Your task to perform on an android device: uninstall "DoorDash - Food Delivery" Image 0: 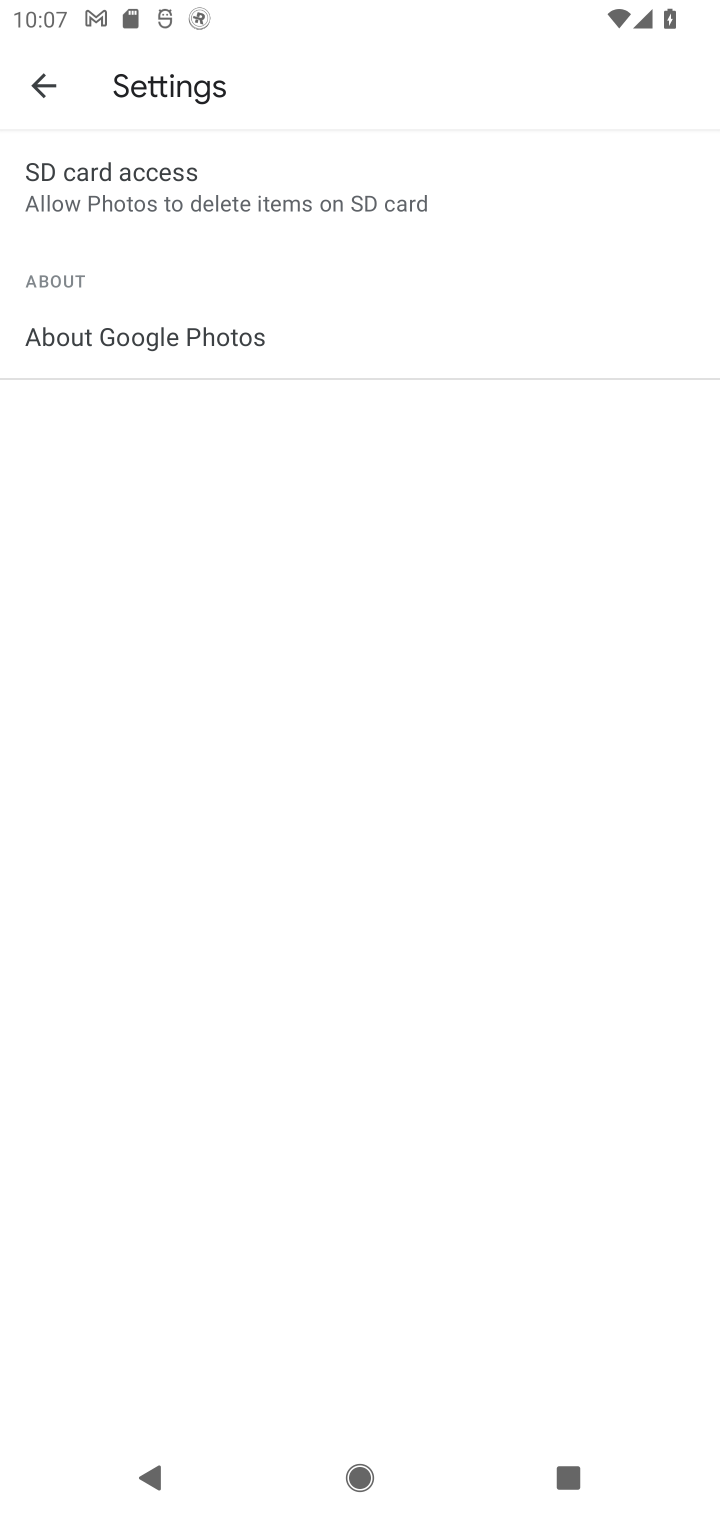
Step 0: press home button
Your task to perform on an android device: uninstall "DoorDash - Food Delivery" Image 1: 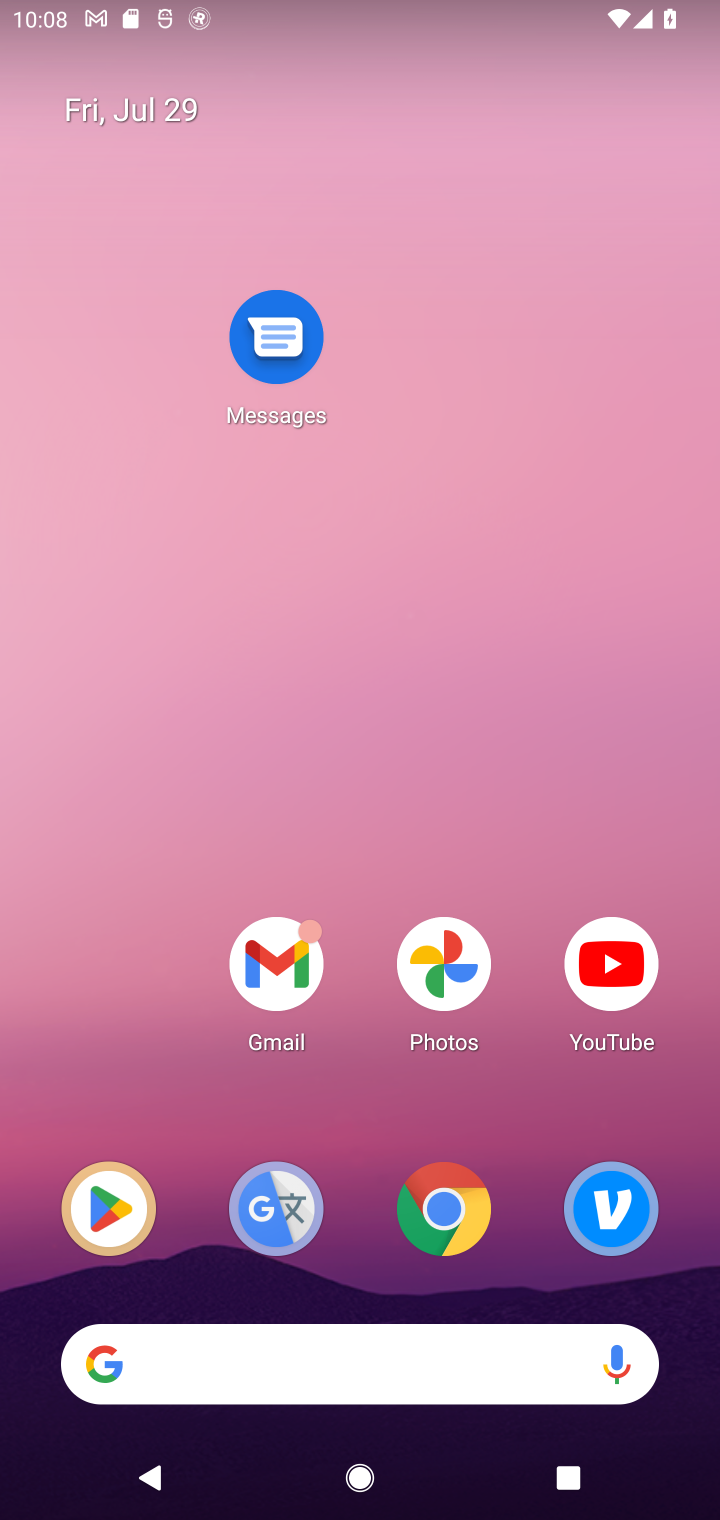
Step 1: drag from (299, 1385) to (434, 513)
Your task to perform on an android device: uninstall "DoorDash - Food Delivery" Image 2: 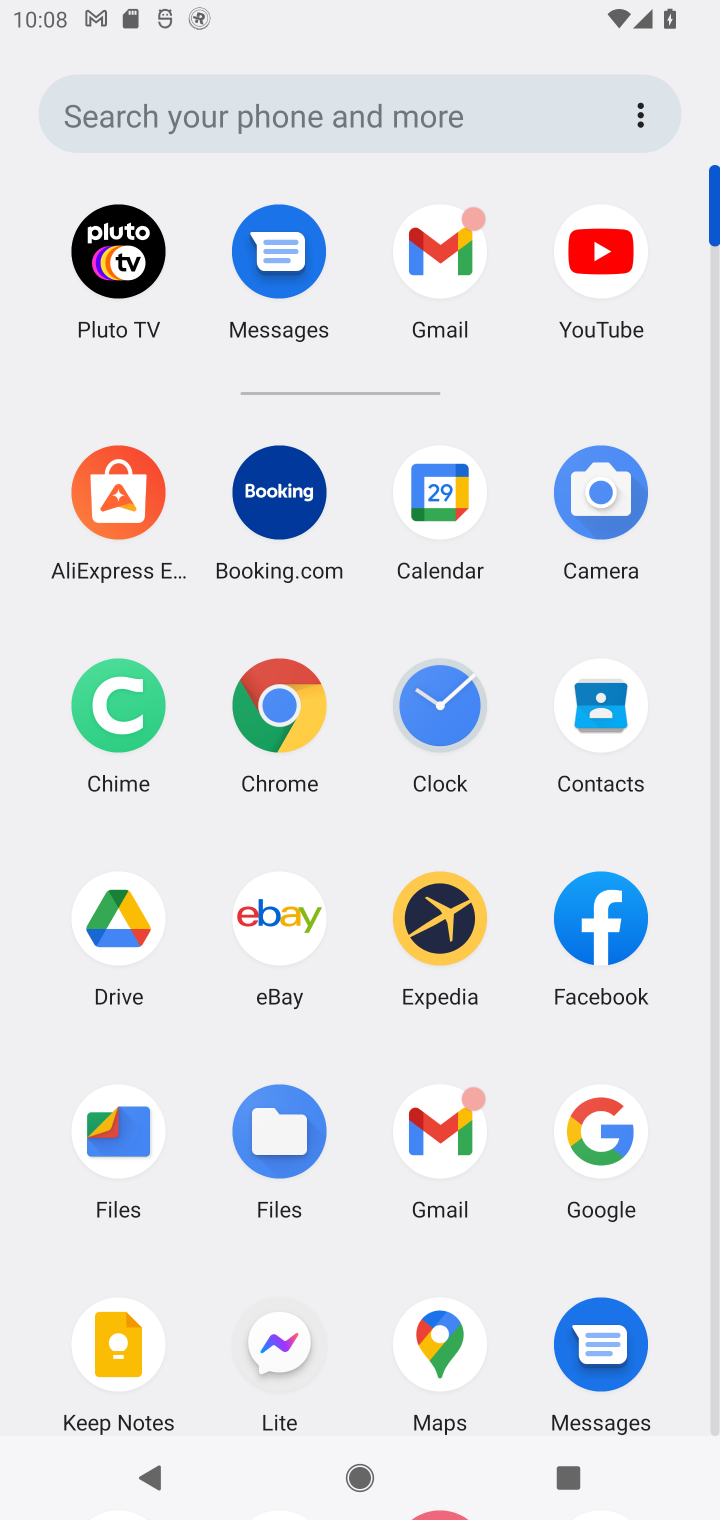
Step 2: drag from (358, 1301) to (379, 752)
Your task to perform on an android device: uninstall "DoorDash - Food Delivery" Image 3: 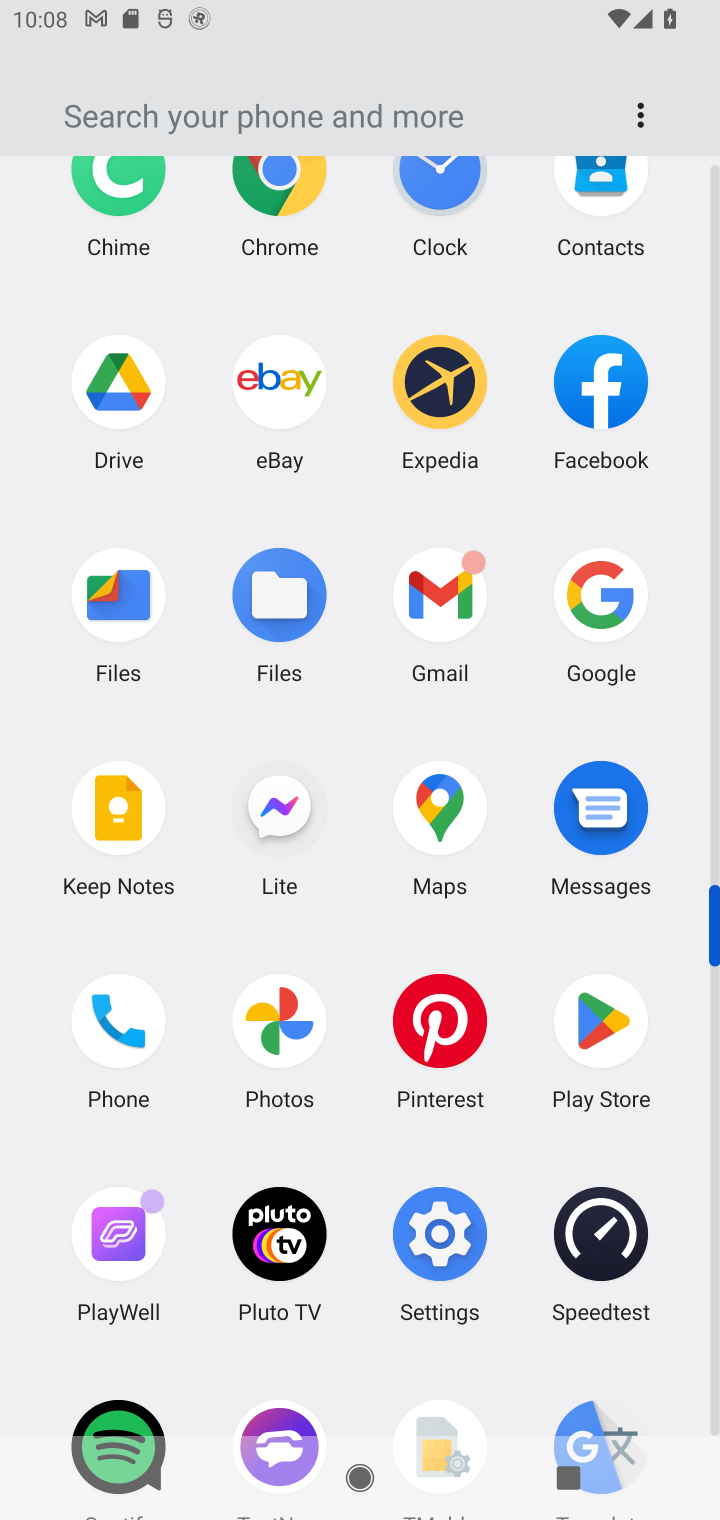
Step 3: drag from (353, 1086) to (370, 858)
Your task to perform on an android device: uninstall "DoorDash - Food Delivery" Image 4: 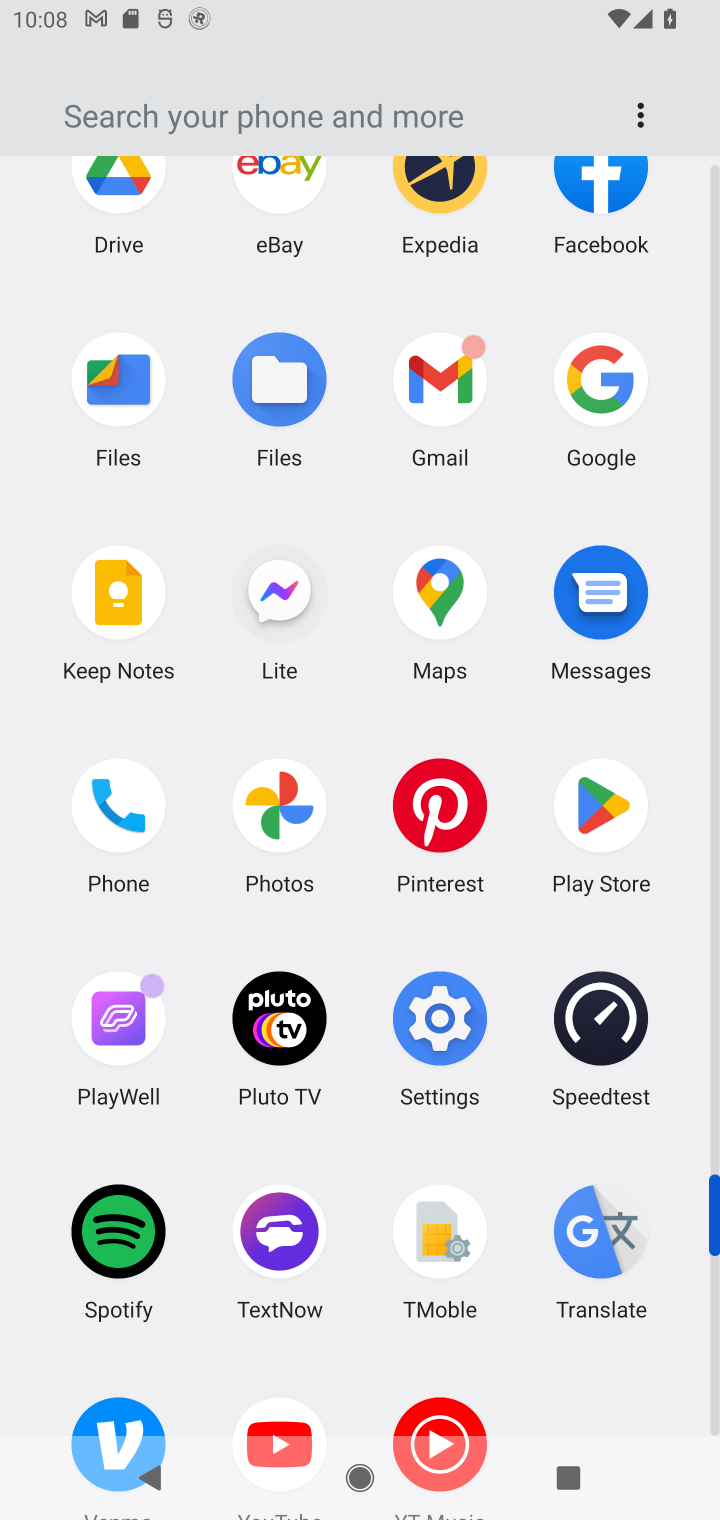
Step 4: click (606, 814)
Your task to perform on an android device: uninstall "DoorDash - Food Delivery" Image 5: 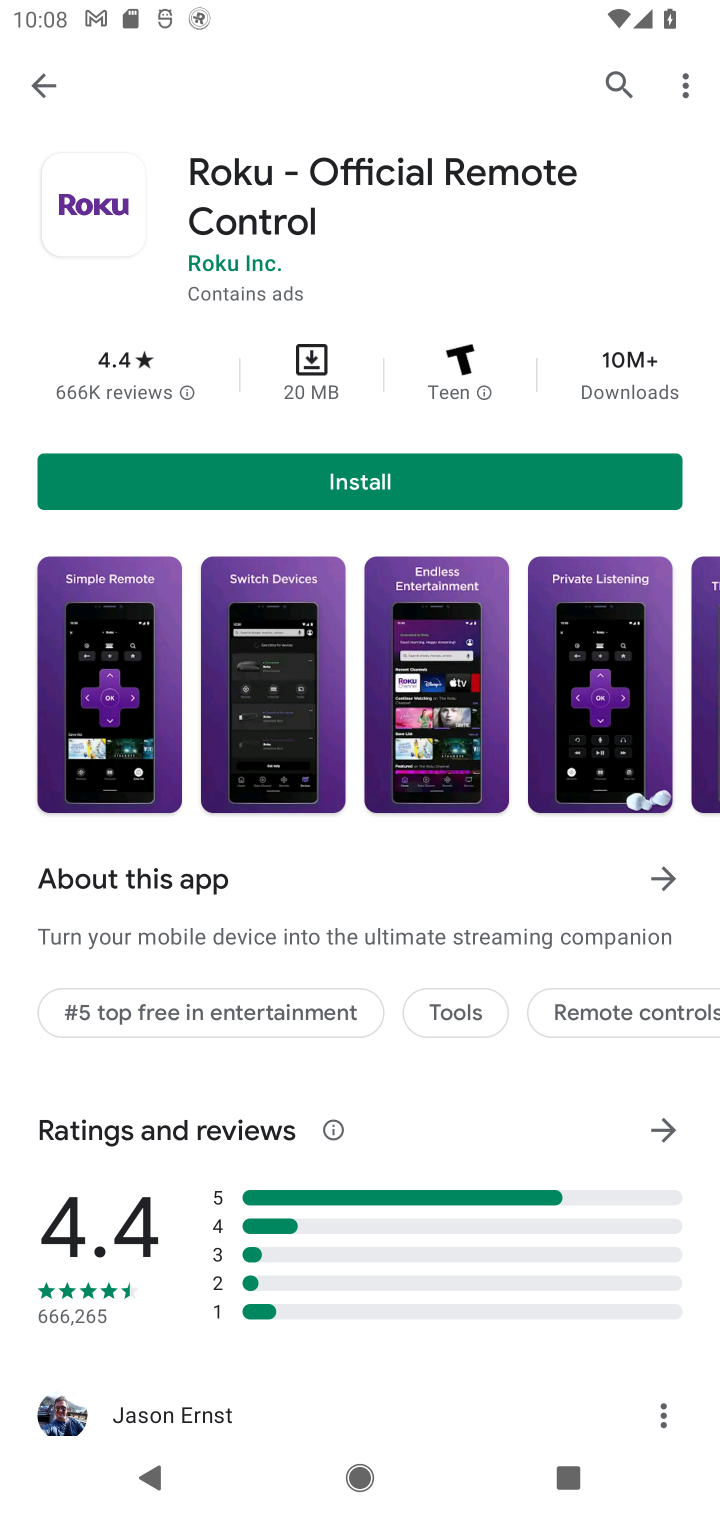
Step 5: click (613, 78)
Your task to perform on an android device: uninstall "DoorDash - Food Delivery" Image 6: 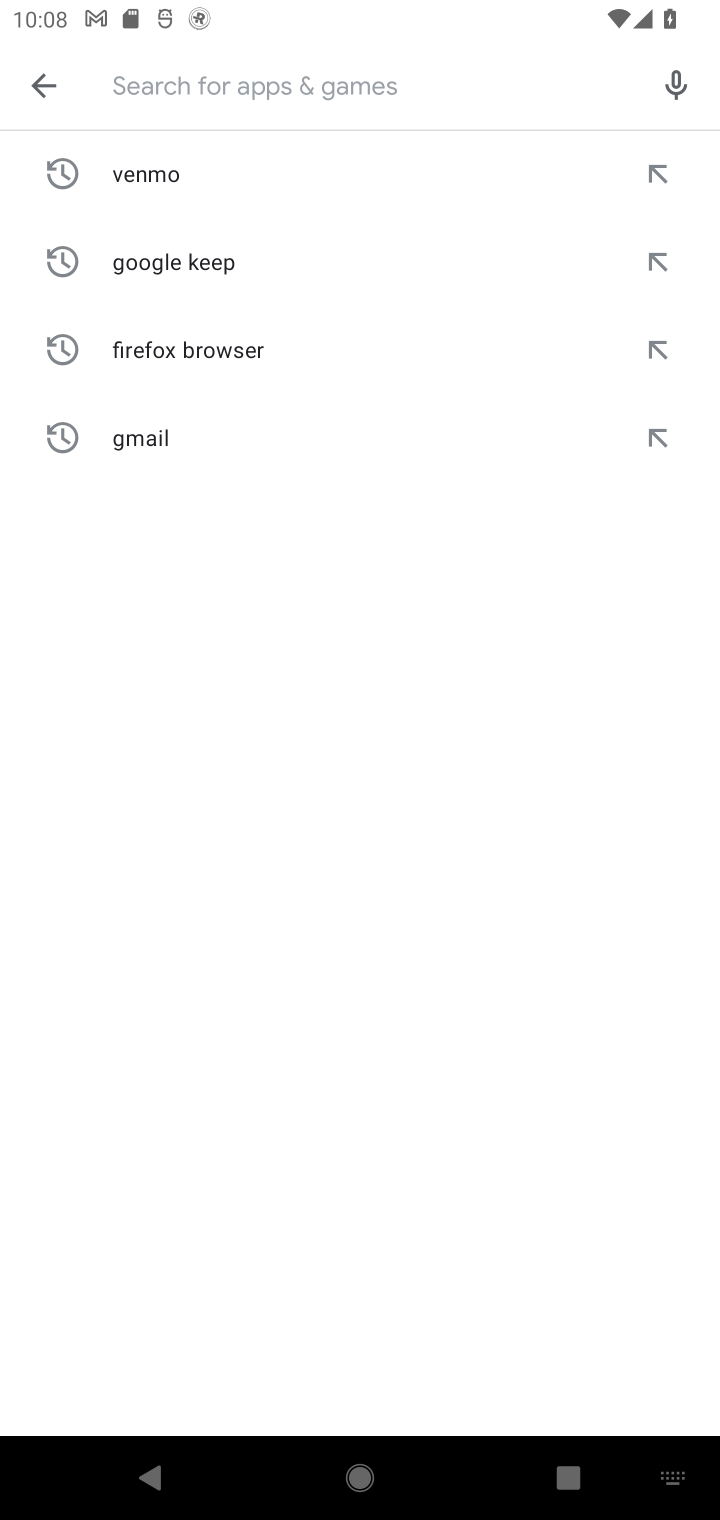
Step 6: click (411, 60)
Your task to perform on an android device: uninstall "DoorDash - Food Delivery" Image 7: 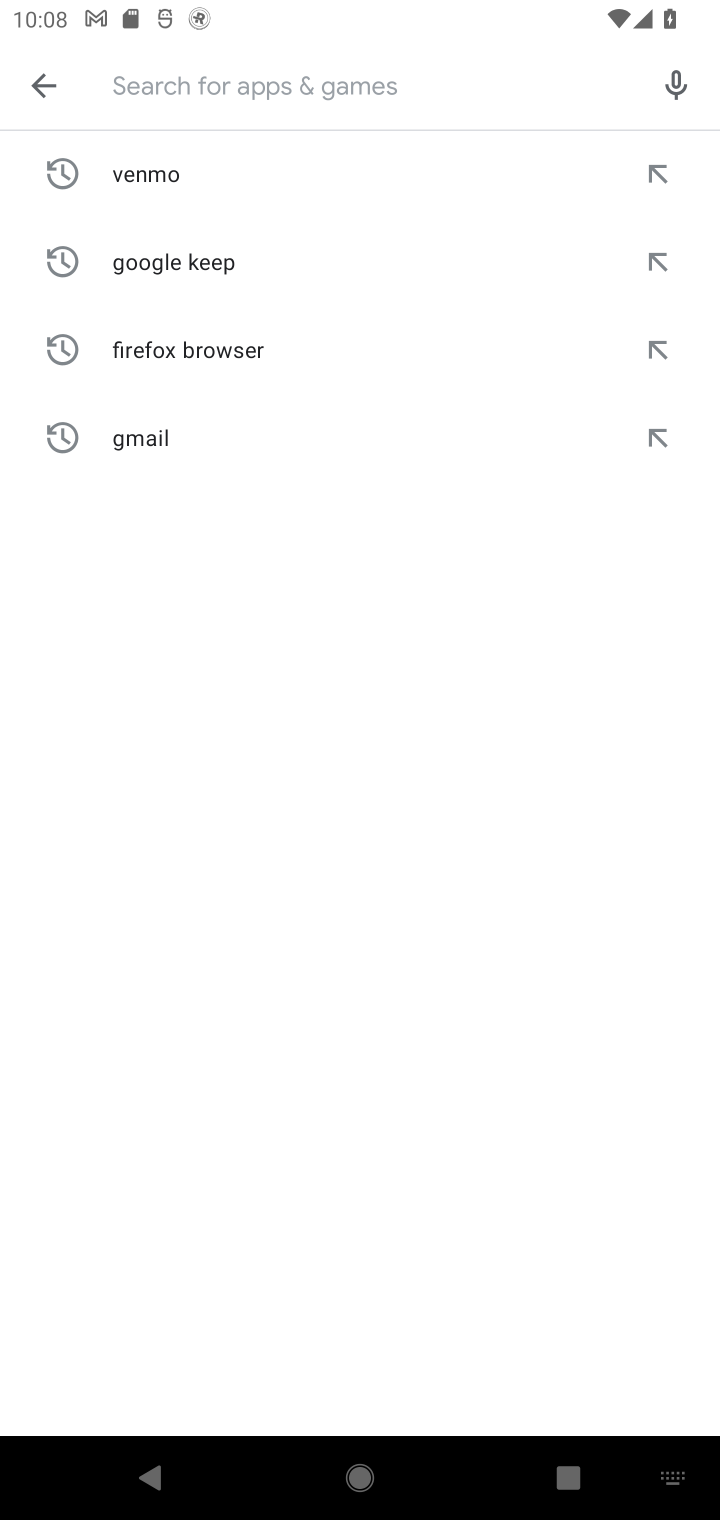
Step 7: type "DoorDash - Food Delivery"
Your task to perform on an android device: uninstall "DoorDash - Food Delivery" Image 8: 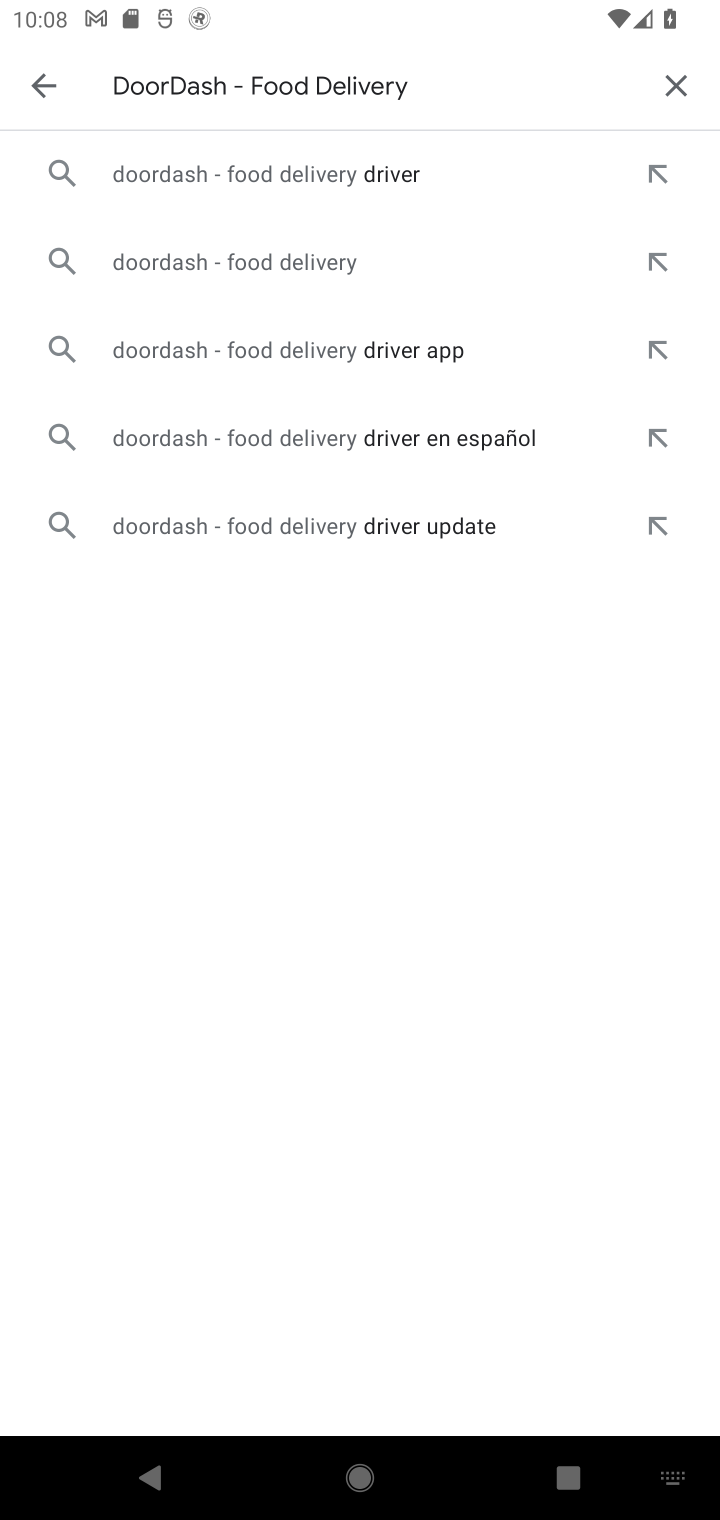
Step 8: click (318, 267)
Your task to perform on an android device: uninstall "DoorDash - Food Delivery" Image 9: 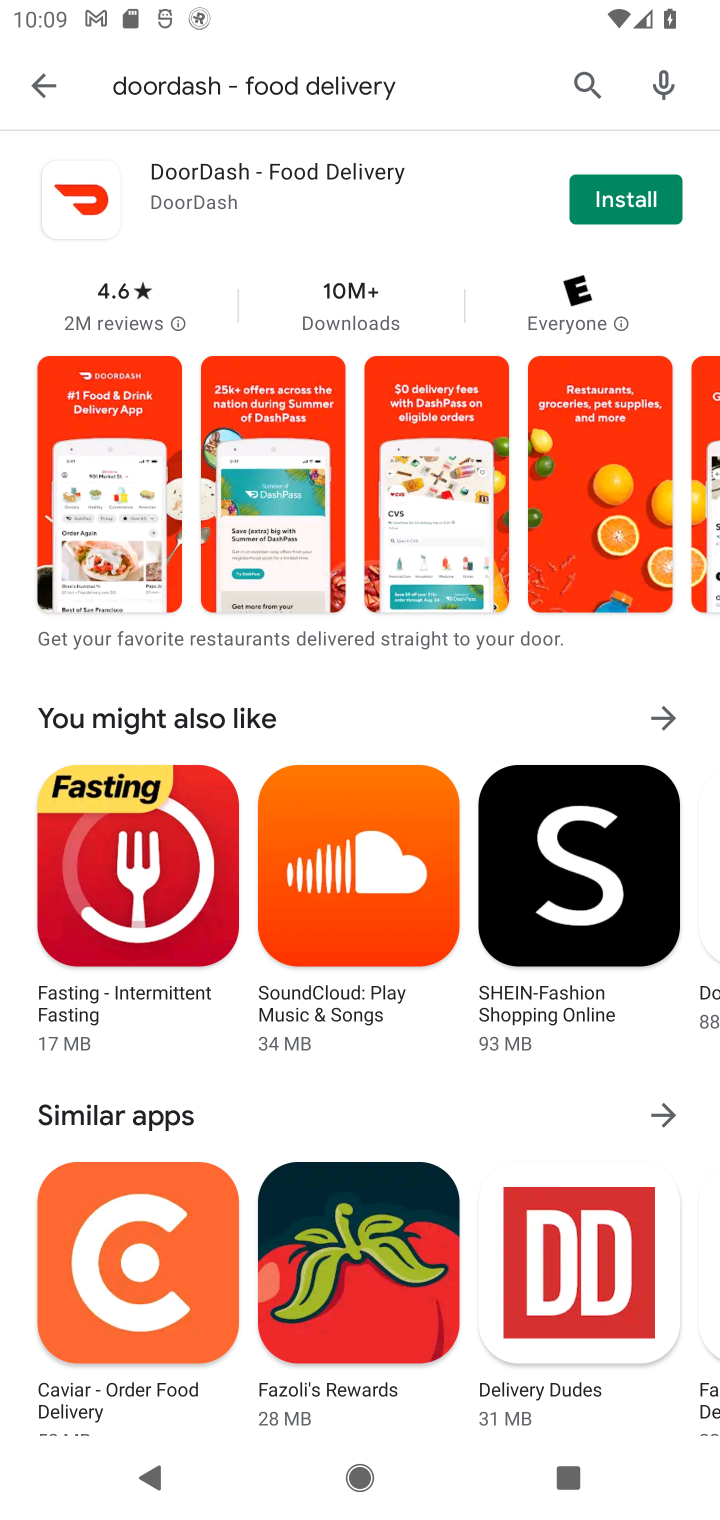
Step 9: task complete